Your task to perform on an android device: Toggle the flashlight Image 0: 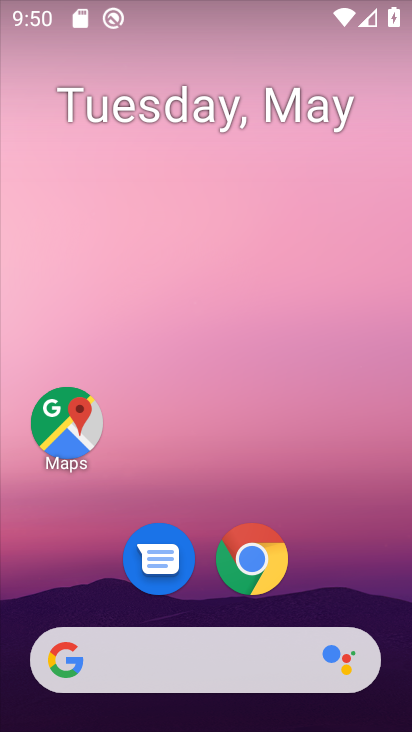
Step 0: drag from (393, 631) to (266, 45)
Your task to perform on an android device: Toggle the flashlight Image 1: 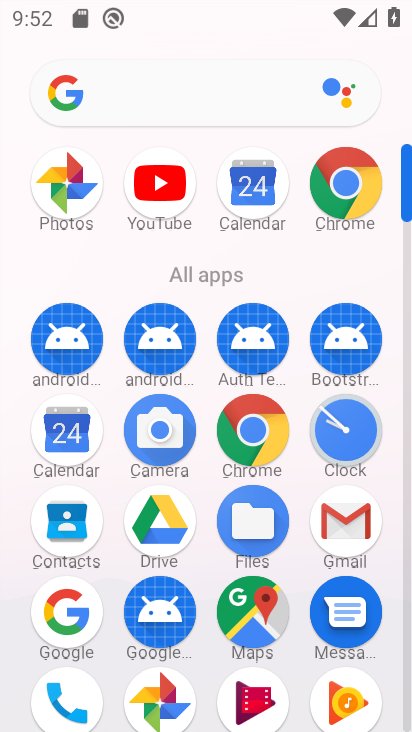
Step 1: drag from (220, 662) to (192, 244)
Your task to perform on an android device: Toggle the flashlight Image 2: 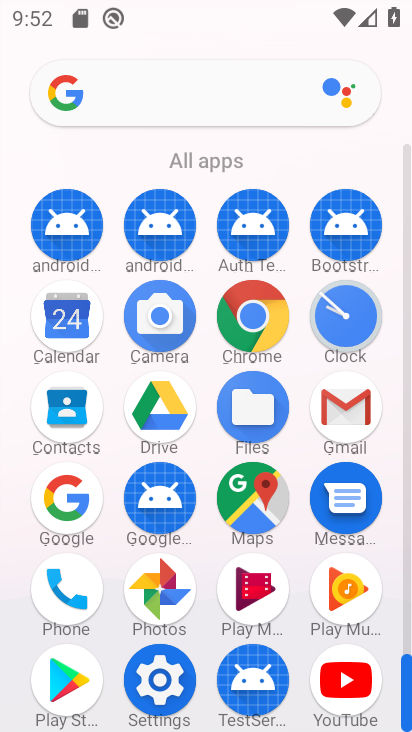
Step 2: click (169, 672)
Your task to perform on an android device: Toggle the flashlight Image 3: 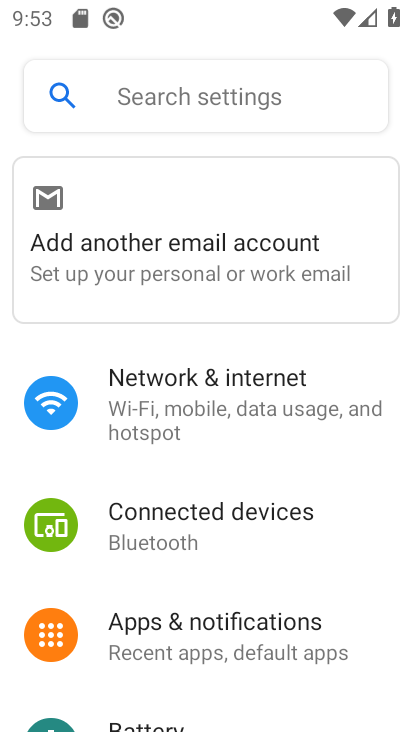
Step 3: task complete